Your task to perform on an android device: turn pop-ups off in chrome Image 0: 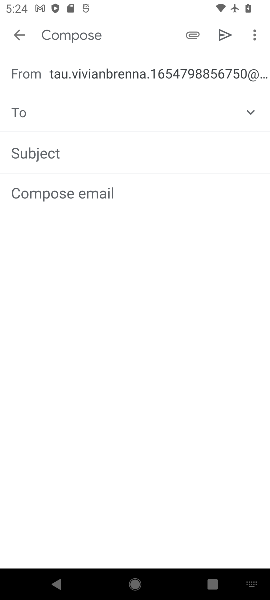
Step 0: press home button
Your task to perform on an android device: turn pop-ups off in chrome Image 1: 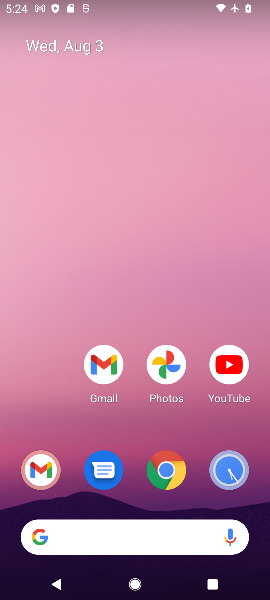
Step 1: drag from (123, 416) to (141, 76)
Your task to perform on an android device: turn pop-ups off in chrome Image 2: 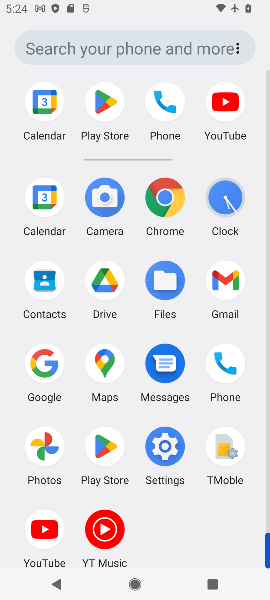
Step 2: click (162, 201)
Your task to perform on an android device: turn pop-ups off in chrome Image 3: 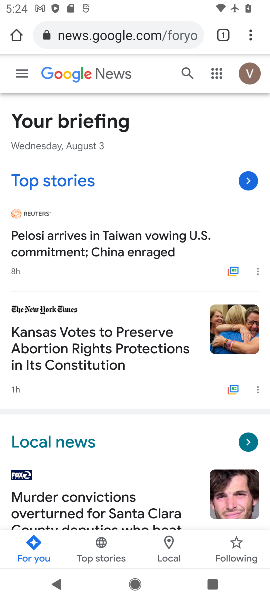
Step 3: click (263, 42)
Your task to perform on an android device: turn pop-ups off in chrome Image 4: 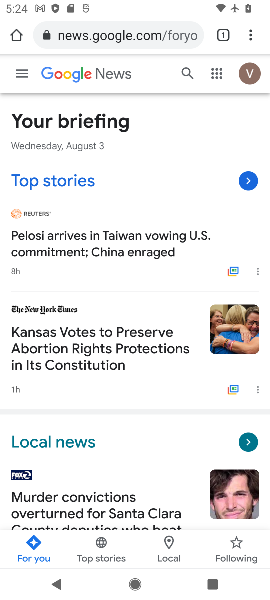
Step 4: drag from (253, 27) to (163, 496)
Your task to perform on an android device: turn pop-ups off in chrome Image 5: 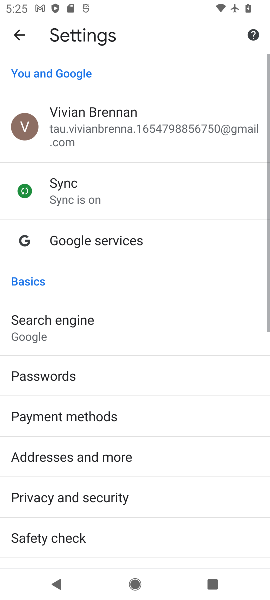
Step 5: drag from (165, 447) to (179, 222)
Your task to perform on an android device: turn pop-ups off in chrome Image 6: 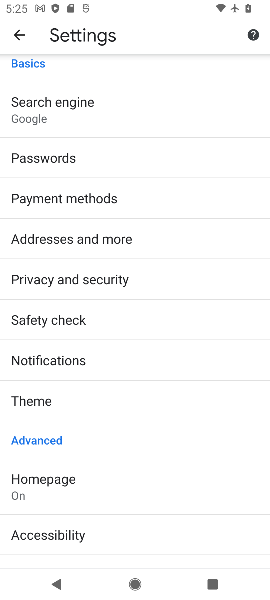
Step 6: drag from (114, 398) to (138, 228)
Your task to perform on an android device: turn pop-ups off in chrome Image 7: 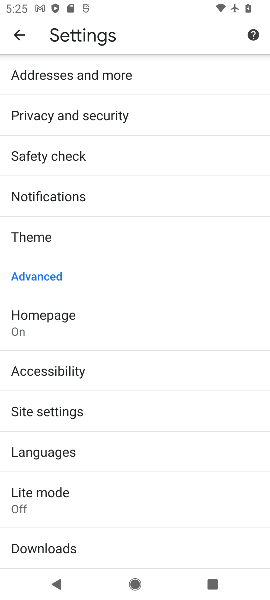
Step 7: click (72, 409)
Your task to perform on an android device: turn pop-ups off in chrome Image 8: 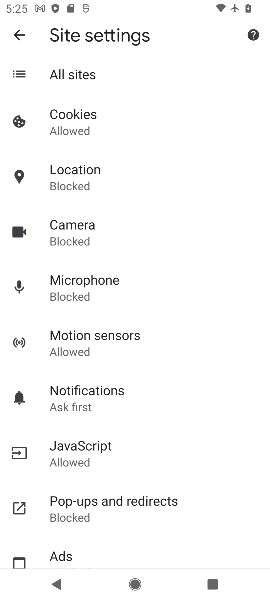
Step 8: click (74, 502)
Your task to perform on an android device: turn pop-ups off in chrome Image 9: 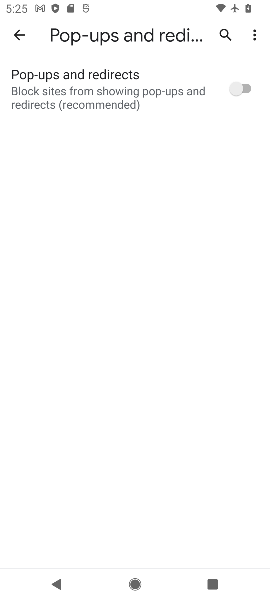
Step 9: task complete